Your task to perform on an android device: toggle location history Image 0: 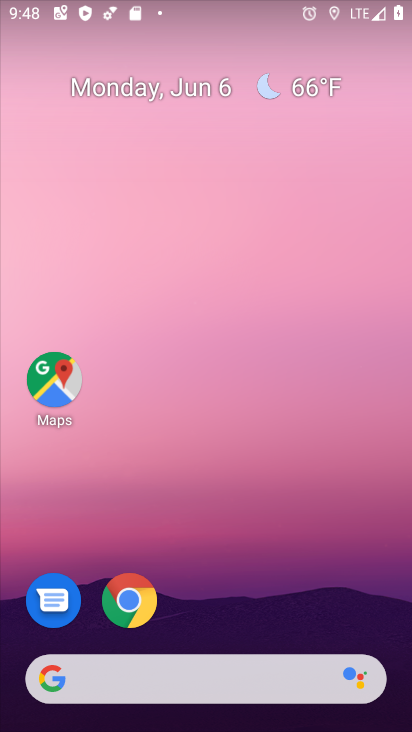
Step 0: drag from (66, 566) to (357, 109)
Your task to perform on an android device: toggle location history Image 1: 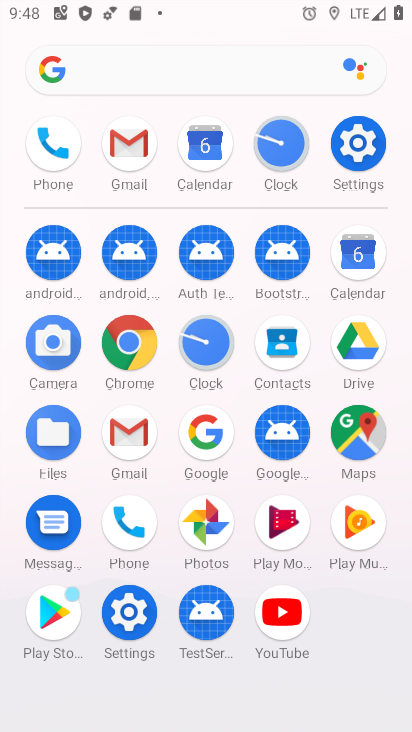
Step 1: click (352, 120)
Your task to perform on an android device: toggle location history Image 2: 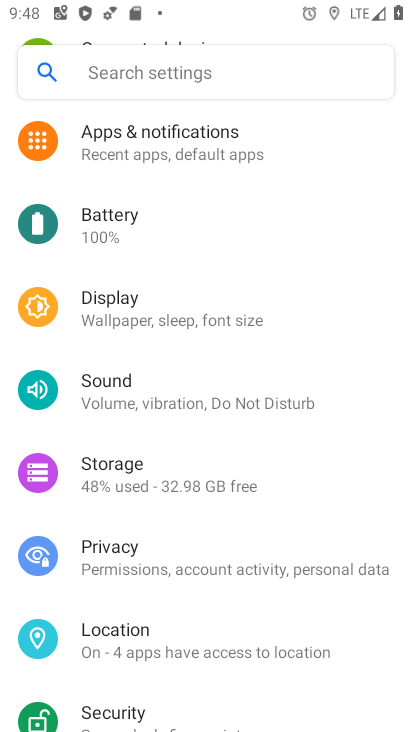
Step 2: click (177, 504)
Your task to perform on an android device: toggle location history Image 3: 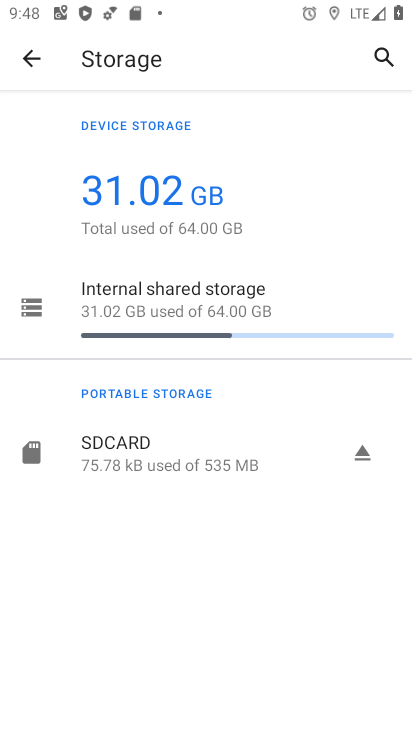
Step 3: press back button
Your task to perform on an android device: toggle location history Image 4: 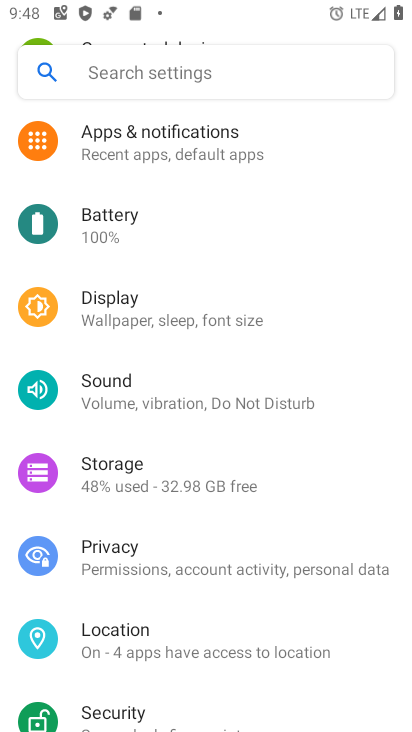
Step 4: click (141, 626)
Your task to perform on an android device: toggle location history Image 5: 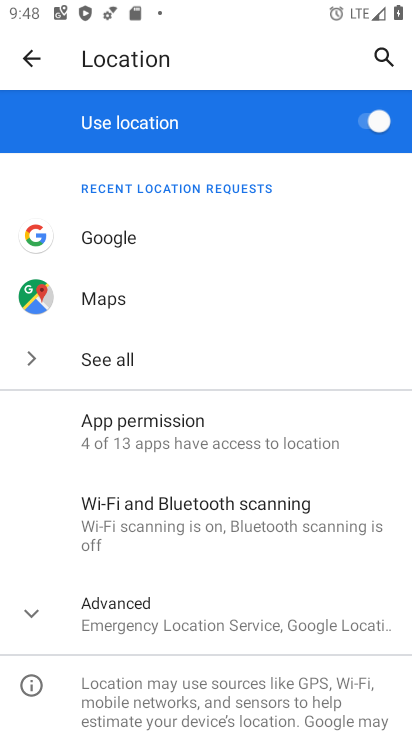
Step 5: click (205, 628)
Your task to perform on an android device: toggle location history Image 6: 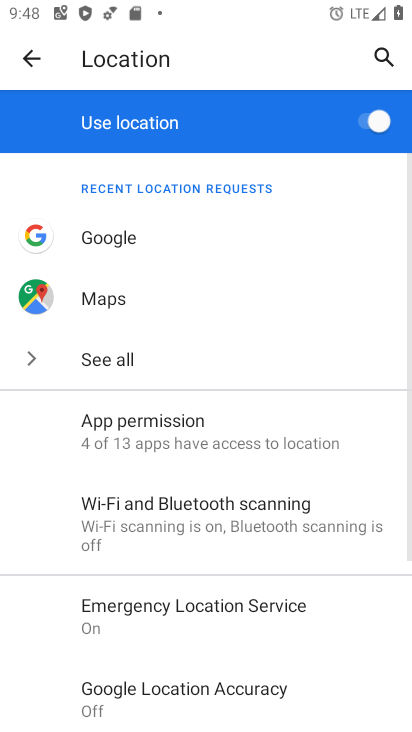
Step 6: drag from (67, 348) to (228, 138)
Your task to perform on an android device: toggle location history Image 7: 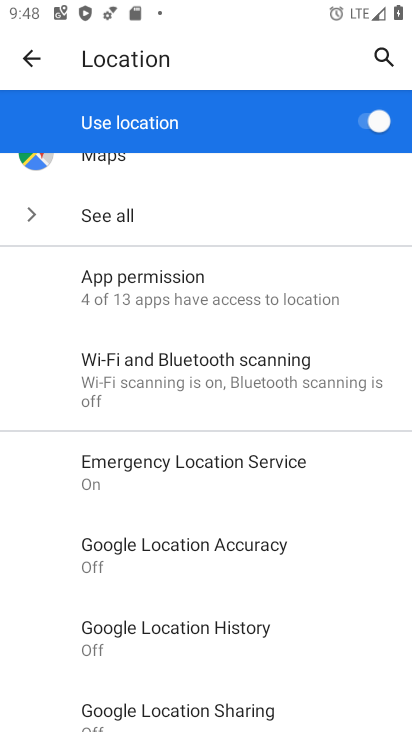
Step 7: click (197, 647)
Your task to perform on an android device: toggle location history Image 8: 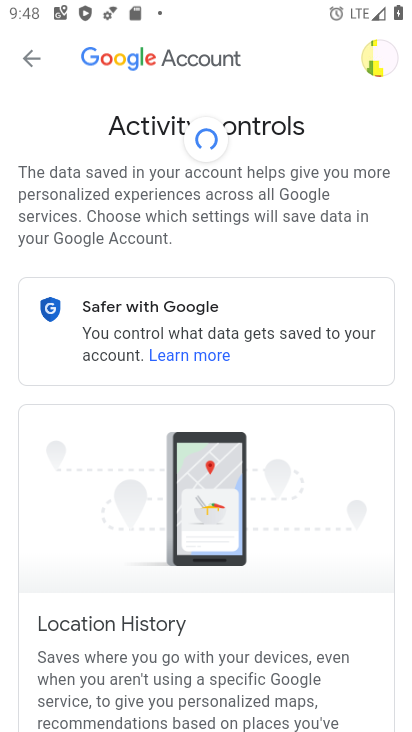
Step 8: drag from (19, 647) to (238, 163)
Your task to perform on an android device: toggle location history Image 9: 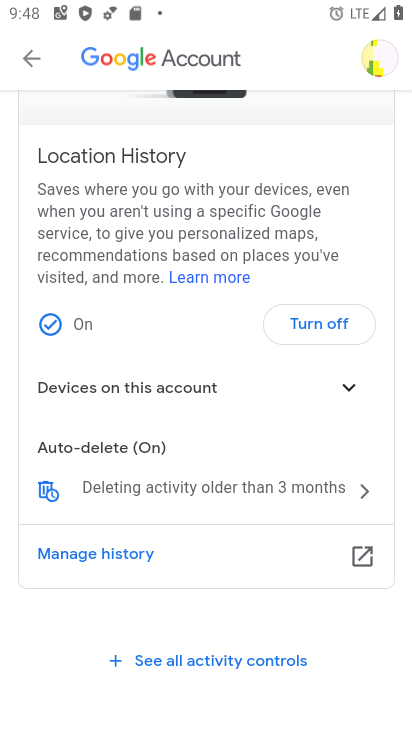
Step 9: click (316, 326)
Your task to perform on an android device: toggle location history Image 10: 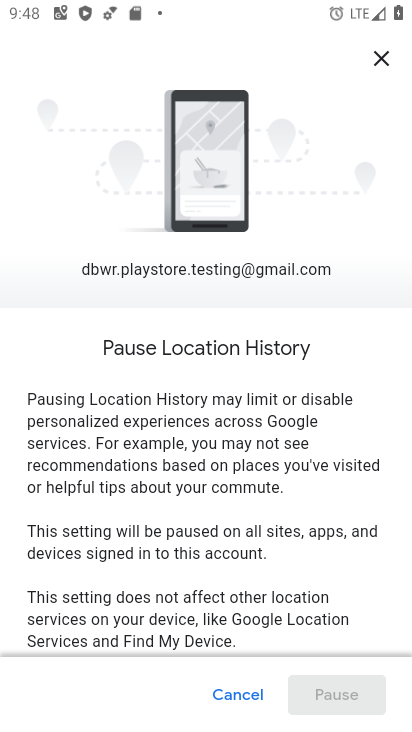
Step 10: drag from (34, 506) to (363, 35)
Your task to perform on an android device: toggle location history Image 11: 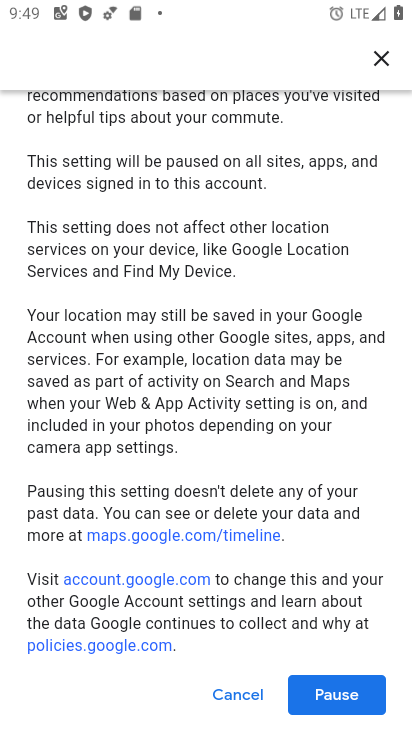
Step 11: click (309, 702)
Your task to perform on an android device: toggle location history Image 12: 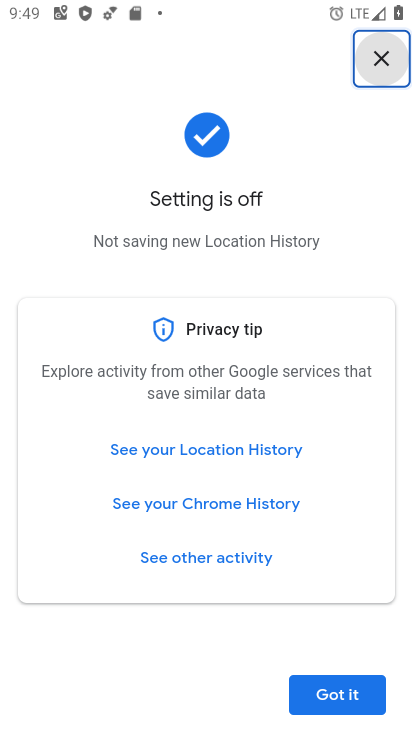
Step 12: click (332, 706)
Your task to perform on an android device: toggle location history Image 13: 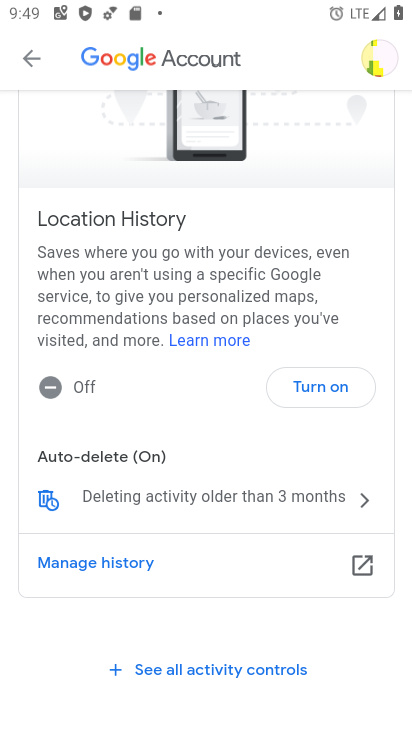
Step 13: task complete